Your task to perform on an android device: Open battery settings Image 0: 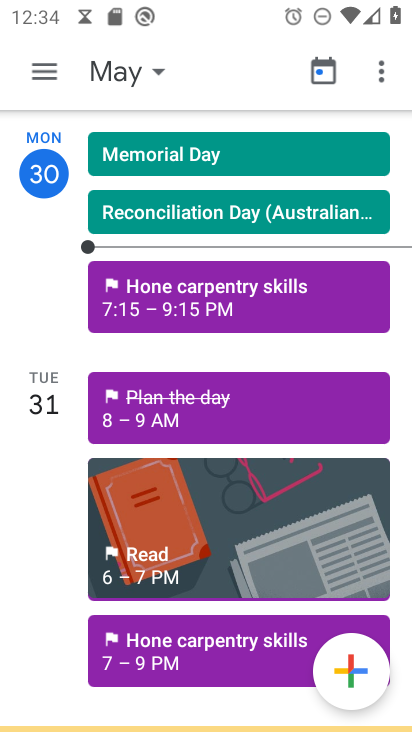
Step 0: press home button
Your task to perform on an android device: Open battery settings Image 1: 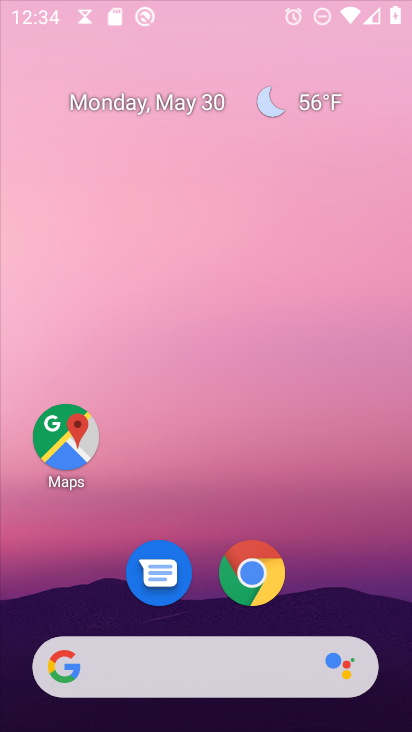
Step 1: drag from (283, 671) to (245, 3)
Your task to perform on an android device: Open battery settings Image 2: 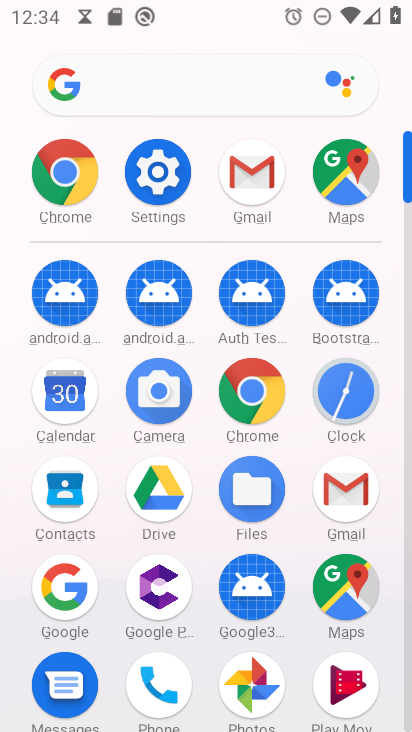
Step 2: click (177, 170)
Your task to perform on an android device: Open battery settings Image 3: 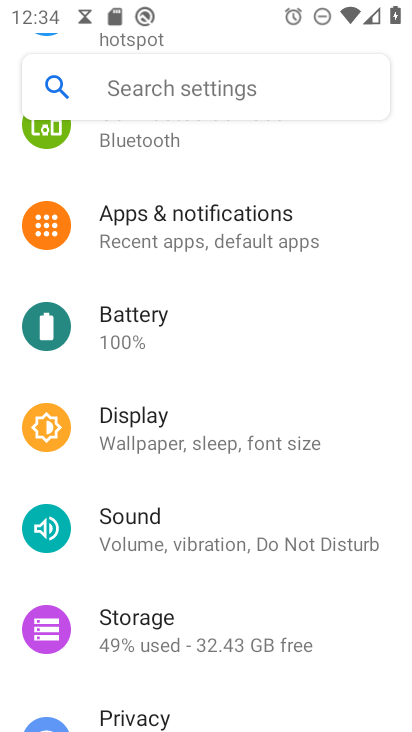
Step 3: click (147, 334)
Your task to perform on an android device: Open battery settings Image 4: 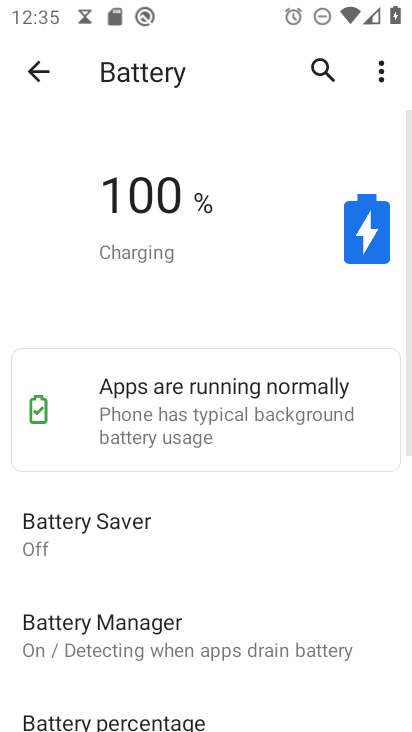
Step 4: task complete